Your task to perform on an android device: Search for Italian restaurants on Maps Image 0: 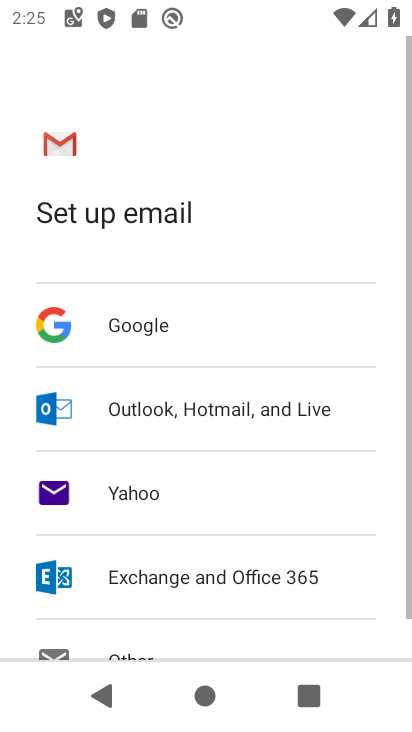
Step 0: press home button
Your task to perform on an android device: Search for Italian restaurants on Maps Image 1: 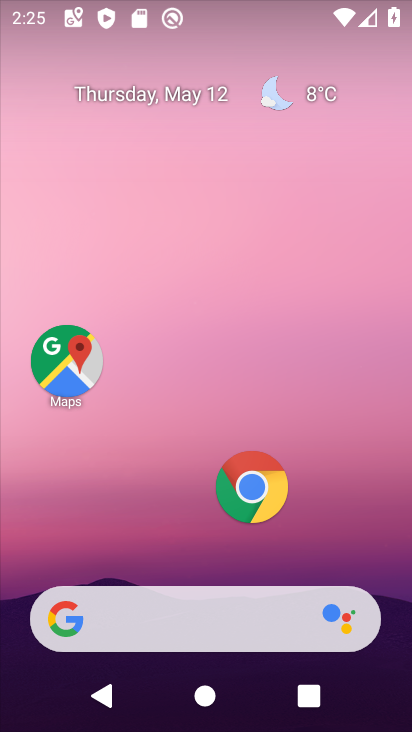
Step 1: click (51, 365)
Your task to perform on an android device: Search for Italian restaurants on Maps Image 2: 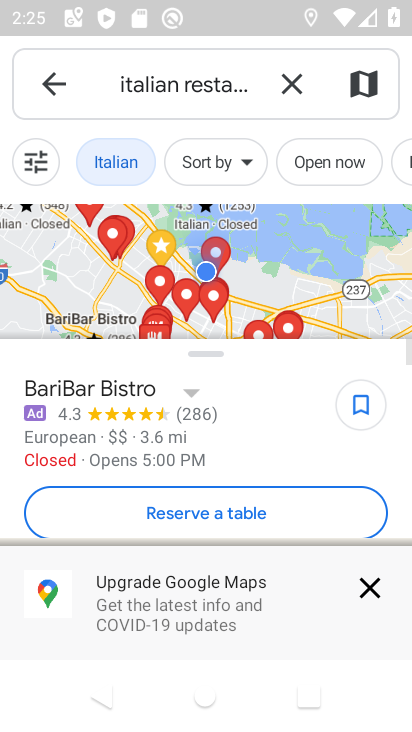
Step 2: task complete